Your task to perform on an android device: Open Android settings Image 0: 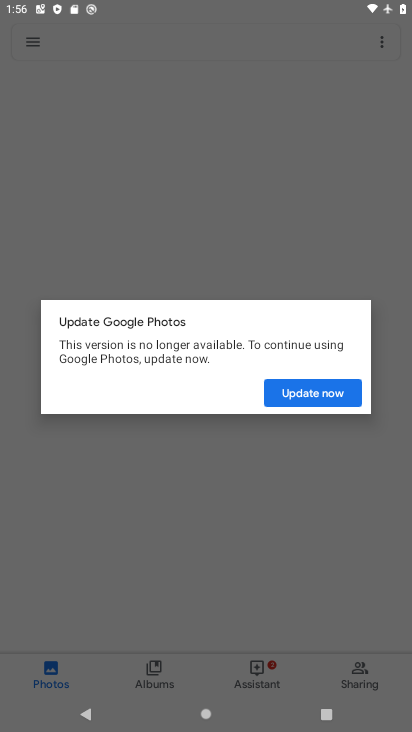
Step 0: press home button
Your task to perform on an android device: Open Android settings Image 1: 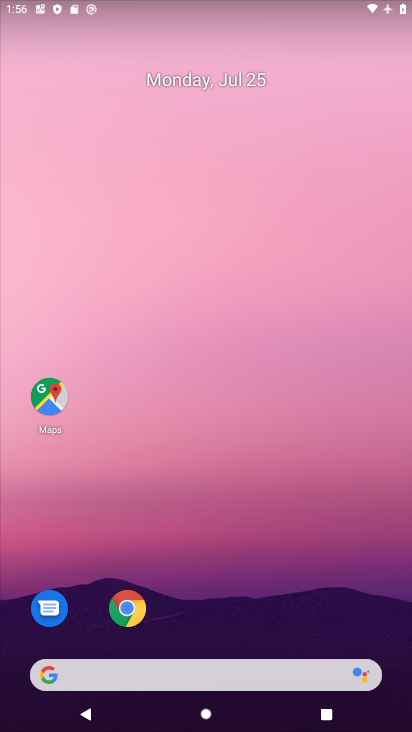
Step 1: drag from (180, 614) to (189, 185)
Your task to perform on an android device: Open Android settings Image 2: 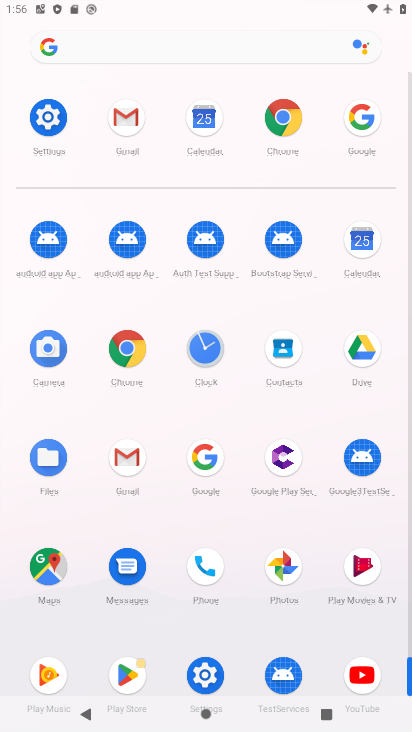
Step 2: click (59, 126)
Your task to perform on an android device: Open Android settings Image 3: 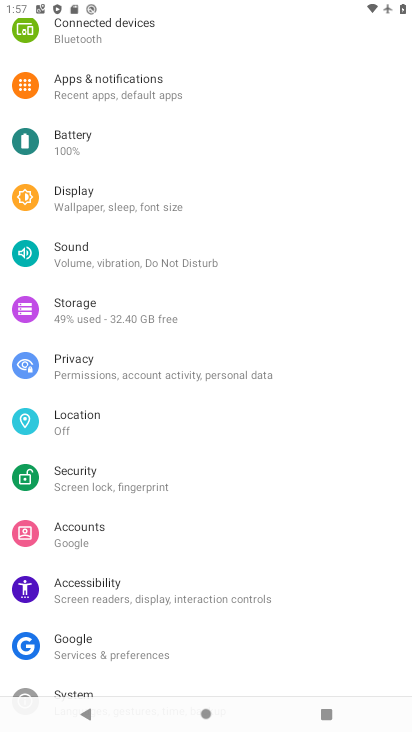
Step 3: drag from (114, 552) to (144, 263)
Your task to perform on an android device: Open Android settings Image 4: 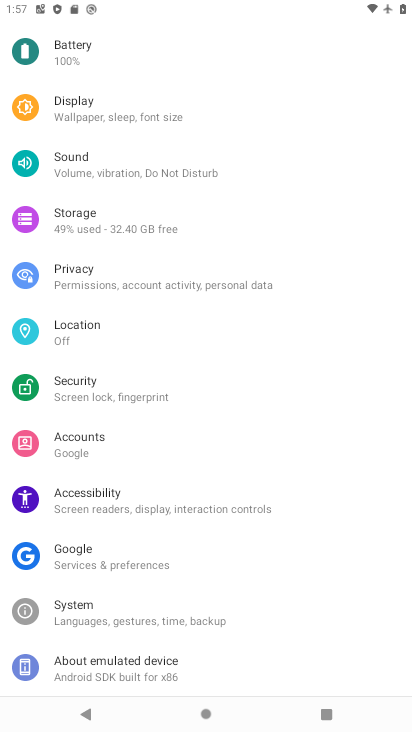
Step 4: drag from (134, 549) to (171, 214)
Your task to perform on an android device: Open Android settings Image 5: 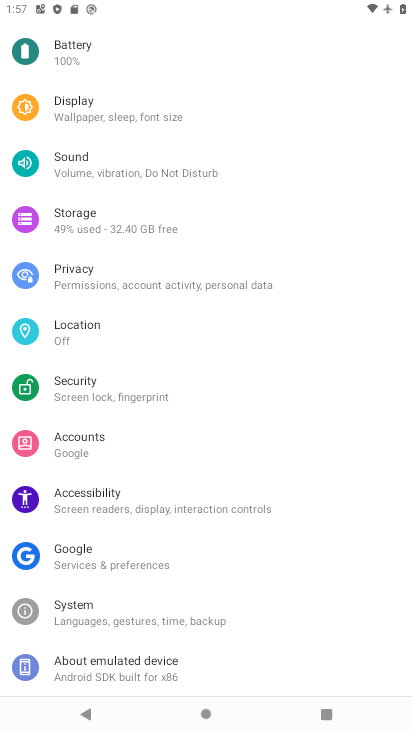
Step 5: click (124, 668)
Your task to perform on an android device: Open Android settings Image 6: 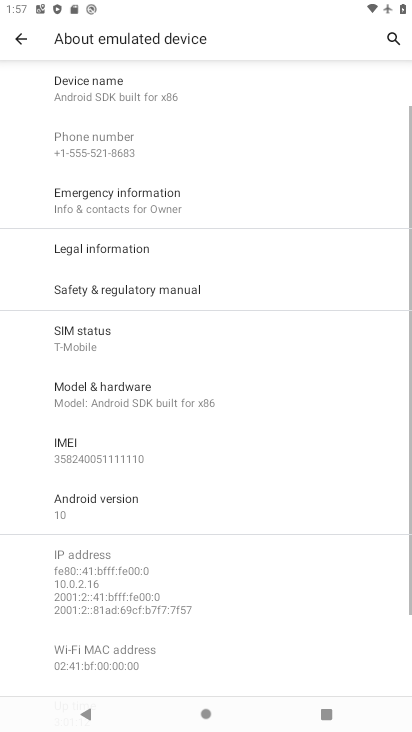
Step 6: click (127, 495)
Your task to perform on an android device: Open Android settings Image 7: 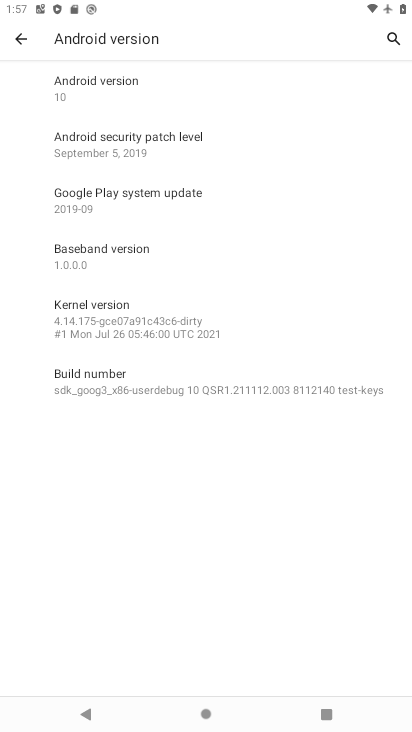
Step 7: task complete